Your task to perform on an android device: change alarm snooze length Image 0: 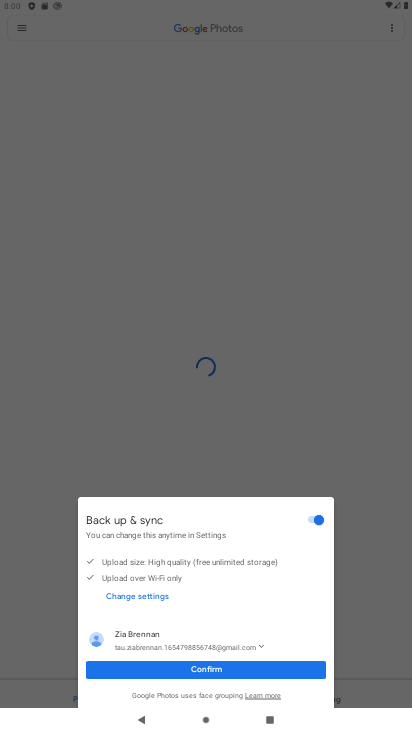
Step 0: press home button
Your task to perform on an android device: change alarm snooze length Image 1: 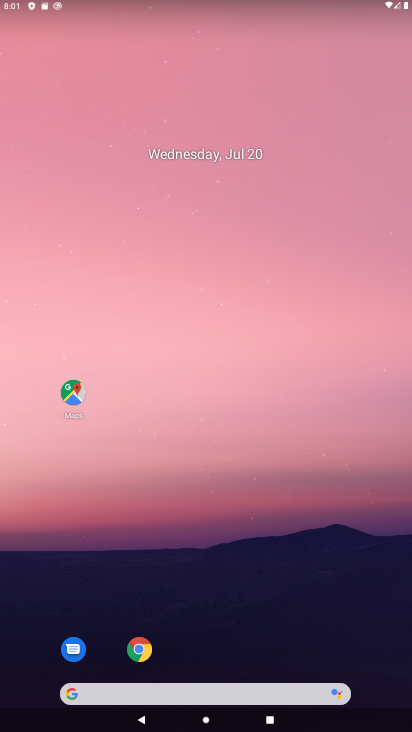
Step 1: drag from (258, 647) to (85, 40)
Your task to perform on an android device: change alarm snooze length Image 2: 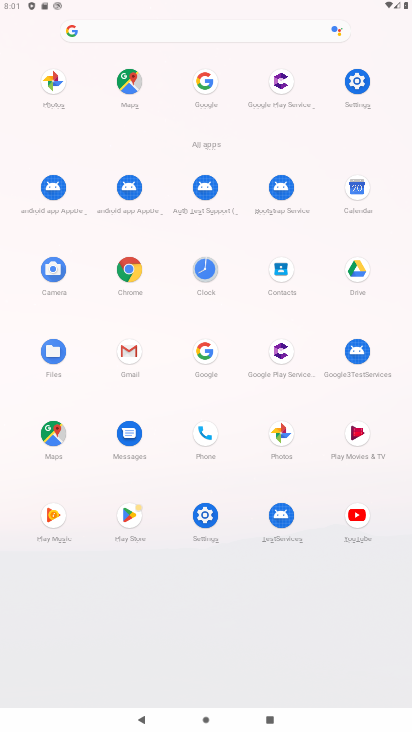
Step 2: click (204, 268)
Your task to perform on an android device: change alarm snooze length Image 3: 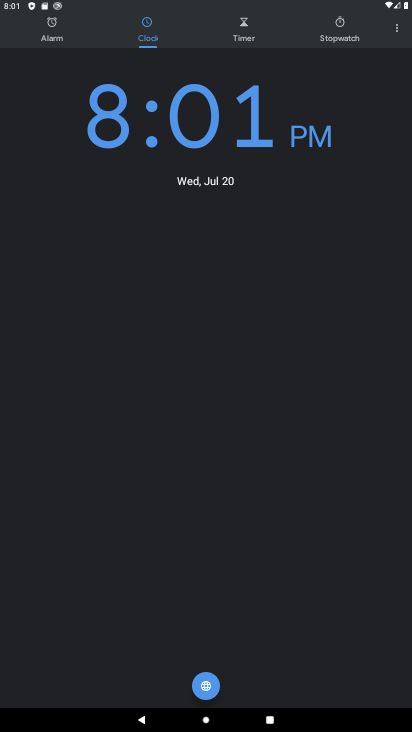
Step 3: click (390, 33)
Your task to perform on an android device: change alarm snooze length Image 4: 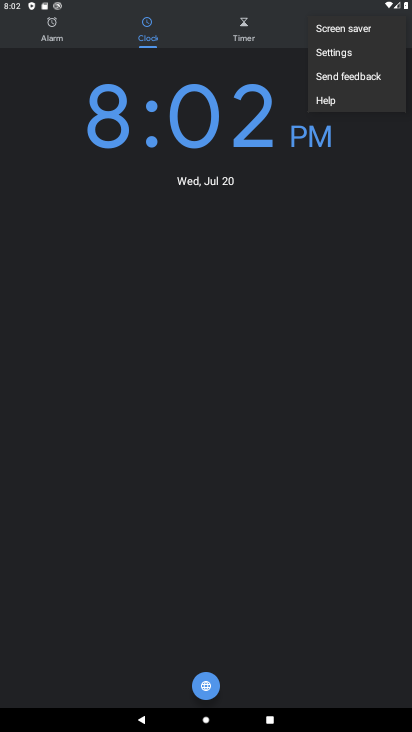
Step 4: click (335, 58)
Your task to perform on an android device: change alarm snooze length Image 5: 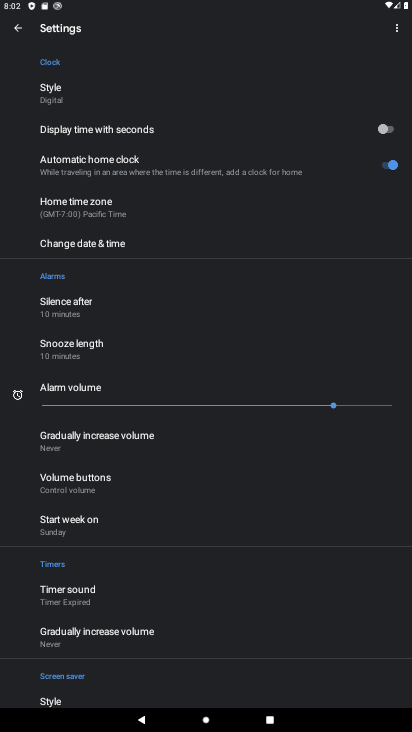
Step 5: task complete